Your task to perform on an android device: turn off airplane mode Image 0: 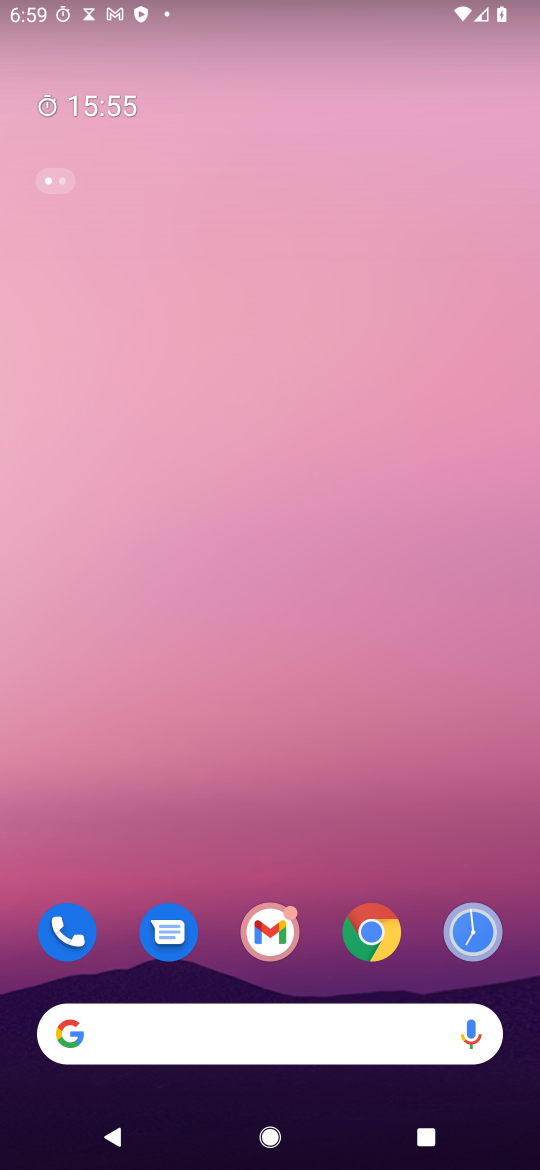
Step 0: drag from (306, 850) to (339, 1169)
Your task to perform on an android device: turn off airplane mode Image 1: 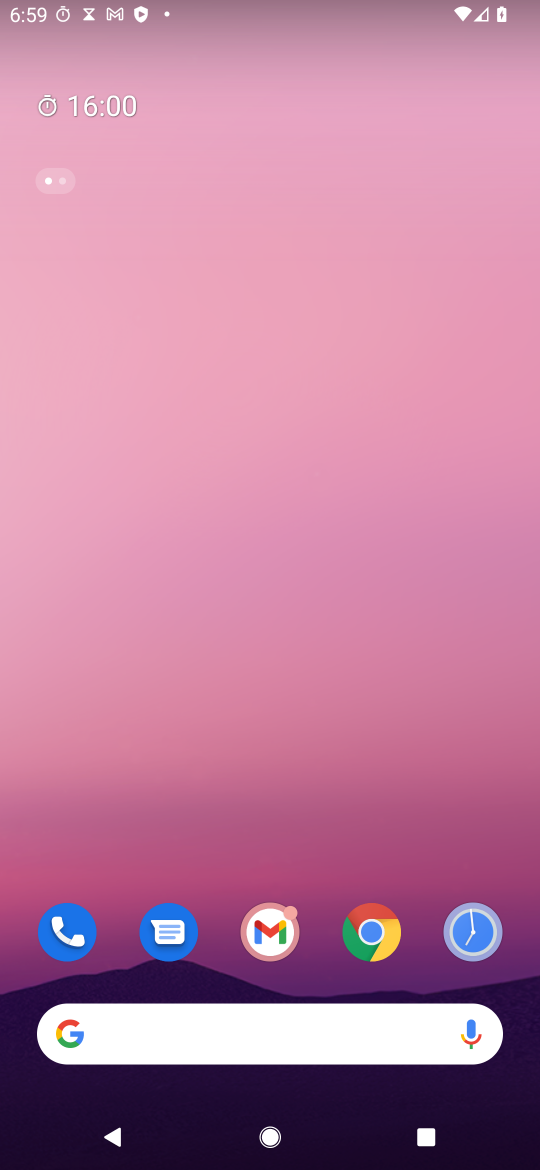
Step 1: drag from (364, 6) to (354, 815)
Your task to perform on an android device: turn off airplane mode Image 2: 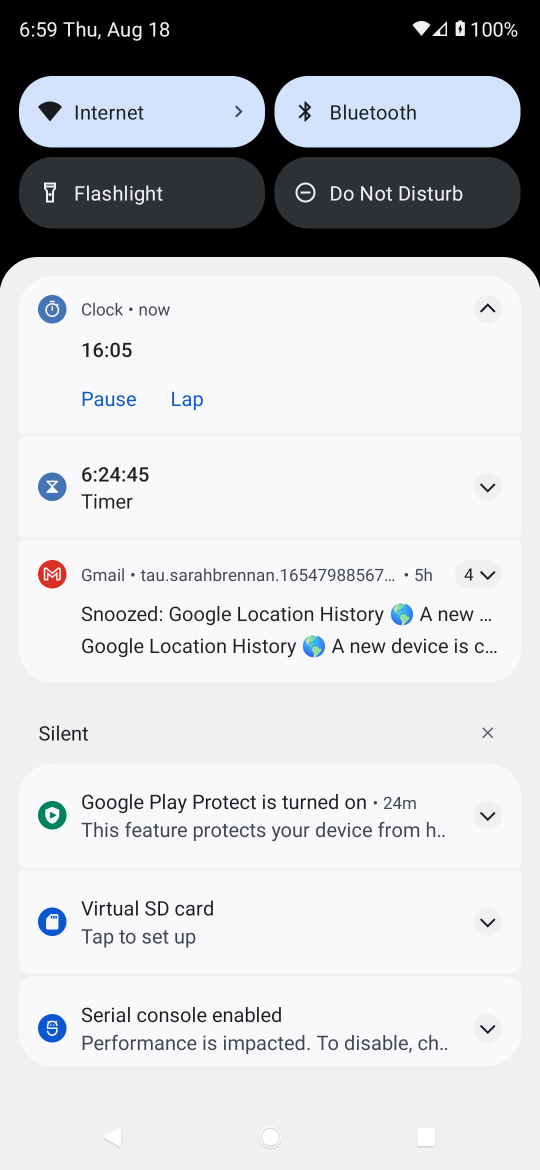
Step 2: drag from (262, 230) to (280, 1161)
Your task to perform on an android device: turn off airplane mode Image 3: 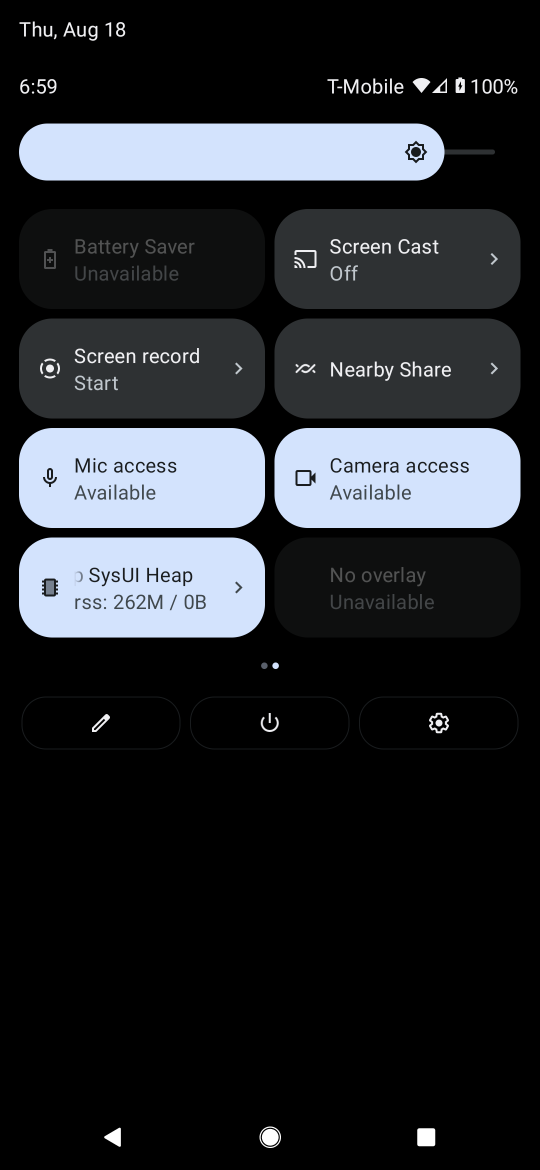
Step 3: drag from (19, 421) to (538, 421)
Your task to perform on an android device: turn off airplane mode Image 4: 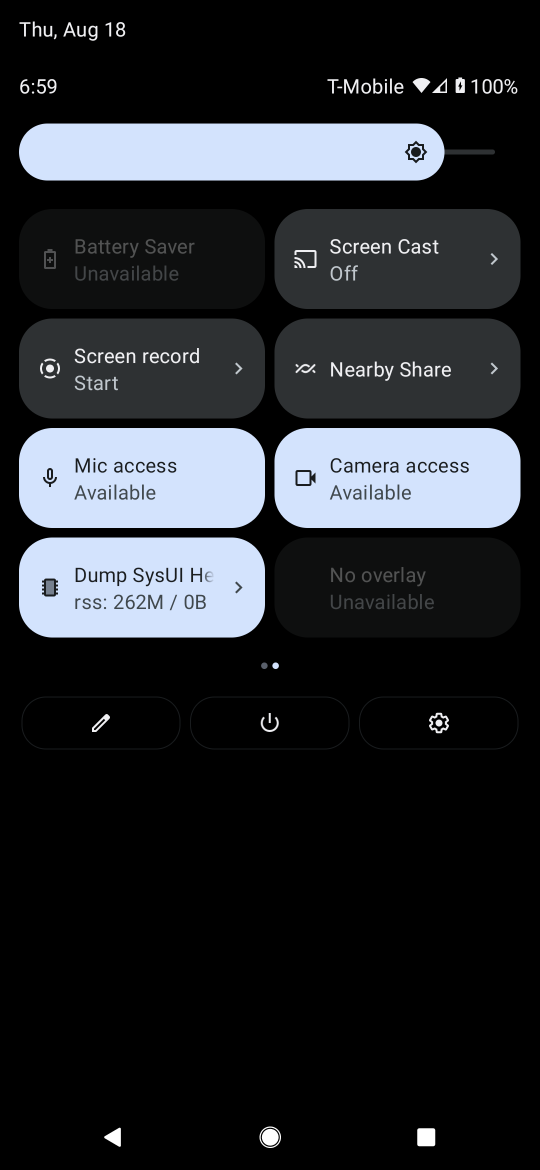
Step 4: drag from (270, 469) to (531, 436)
Your task to perform on an android device: turn off airplane mode Image 5: 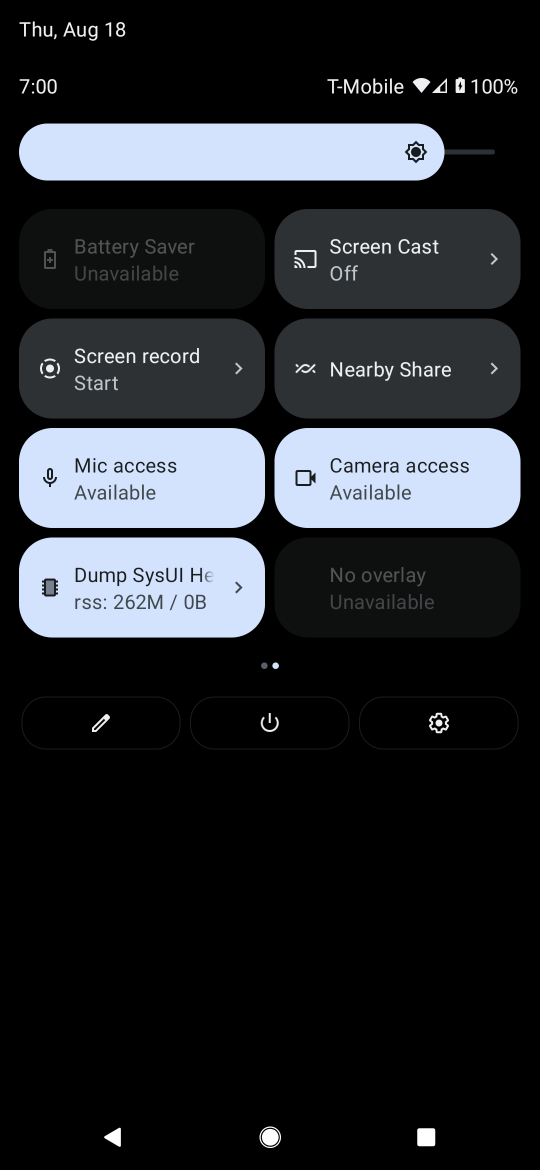
Step 5: drag from (21, 179) to (534, 315)
Your task to perform on an android device: turn off airplane mode Image 6: 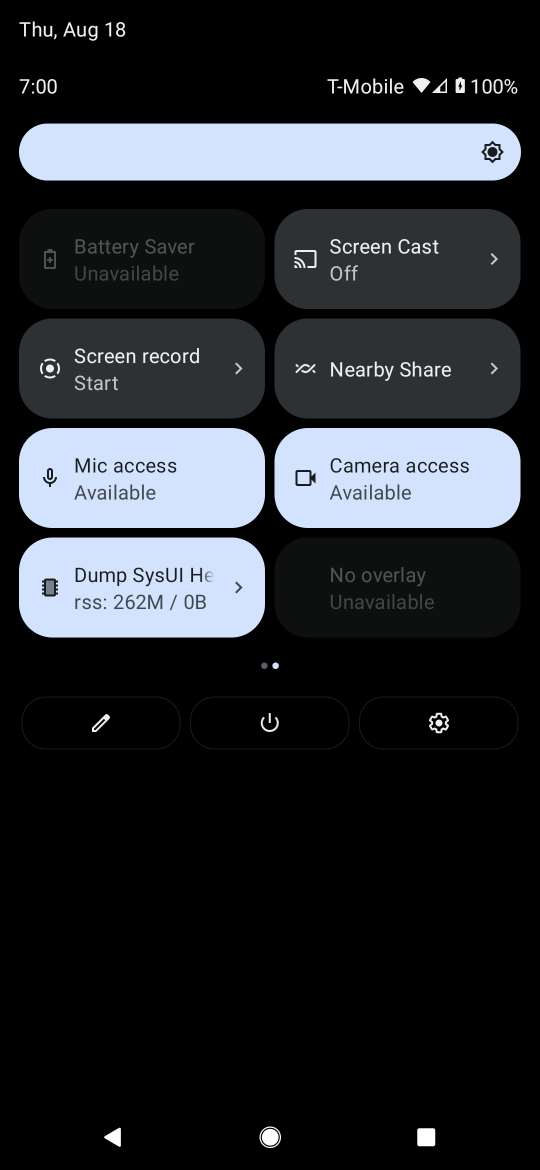
Step 6: drag from (111, 5) to (108, 58)
Your task to perform on an android device: turn off airplane mode Image 7: 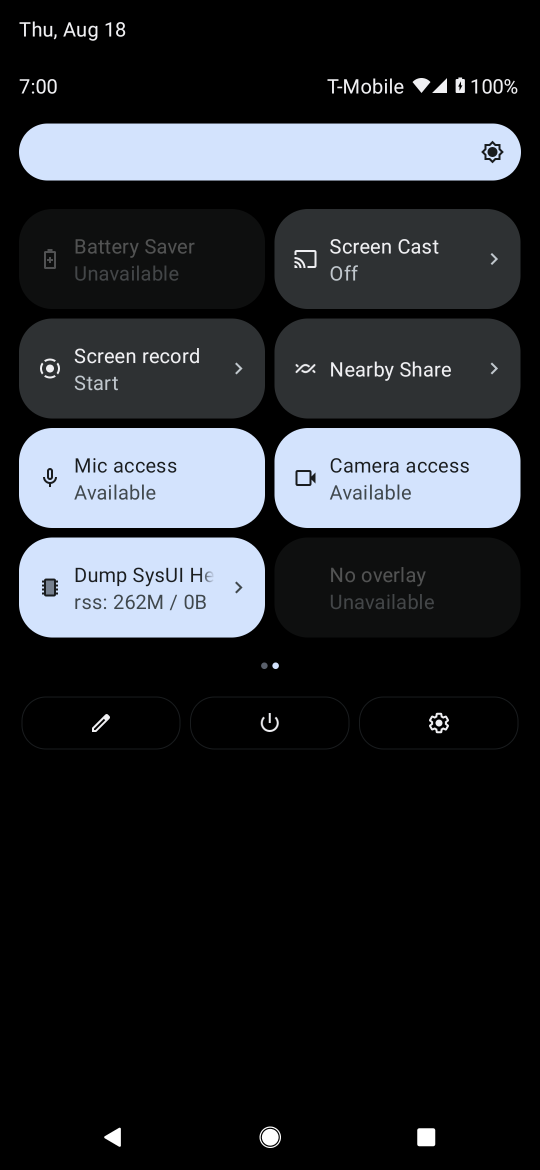
Step 7: drag from (12, 528) to (447, 782)
Your task to perform on an android device: turn off airplane mode Image 8: 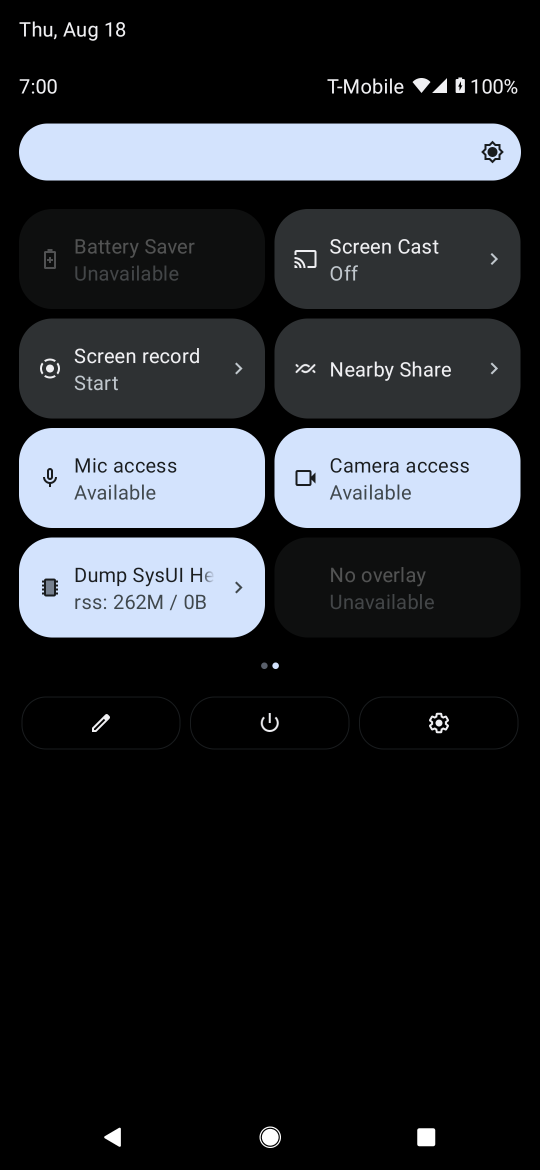
Step 8: drag from (52, 669) to (518, 554)
Your task to perform on an android device: turn off airplane mode Image 9: 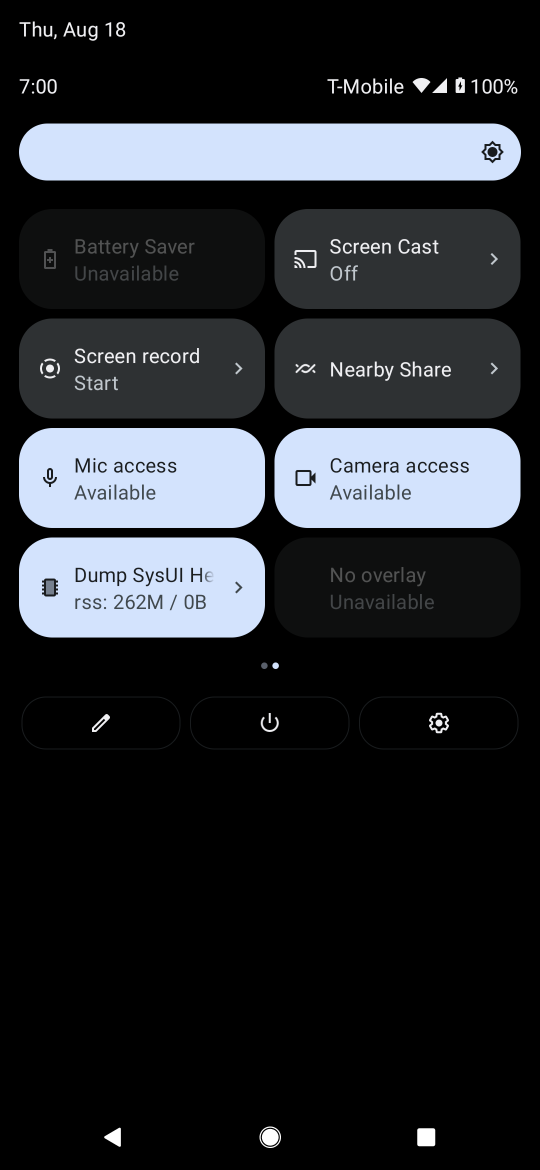
Step 9: drag from (12, 400) to (530, 628)
Your task to perform on an android device: turn off airplane mode Image 10: 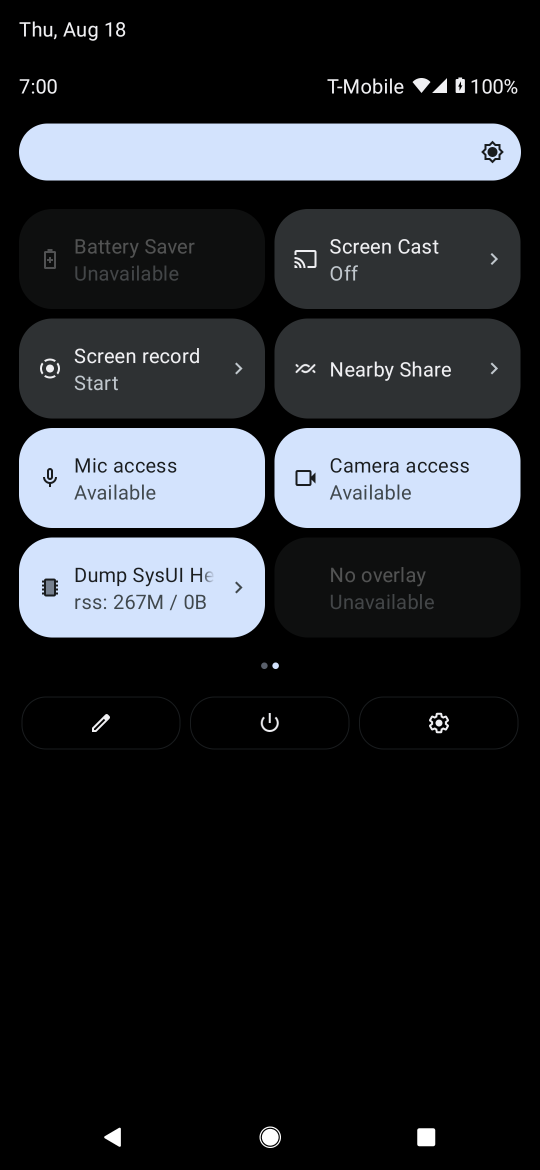
Step 10: drag from (22, 434) to (536, 421)
Your task to perform on an android device: turn off airplane mode Image 11: 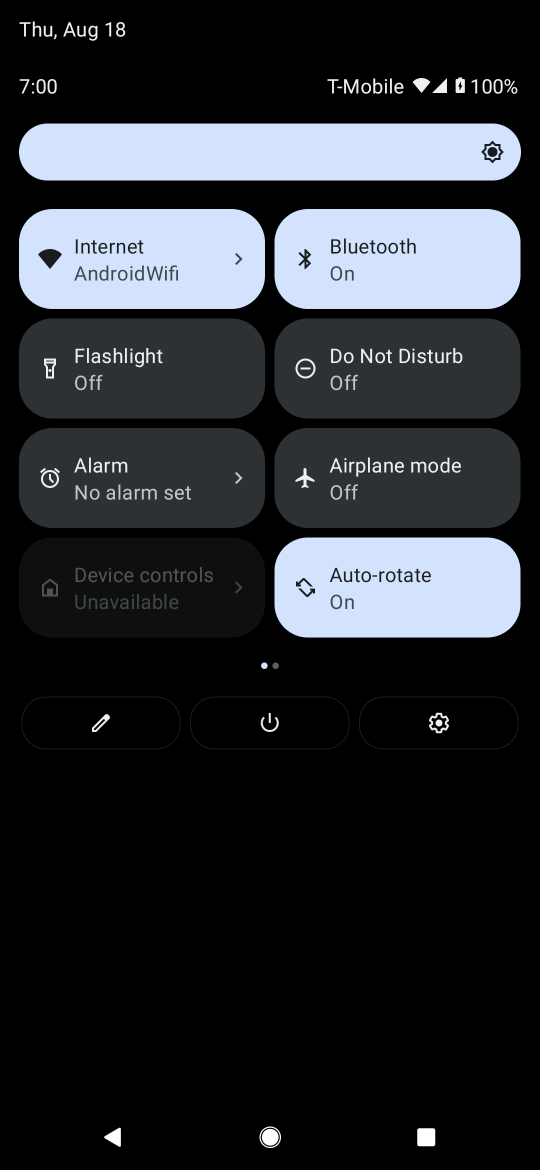
Step 11: click (361, 477)
Your task to perform on an android device: turn off airplane mode Image 12: 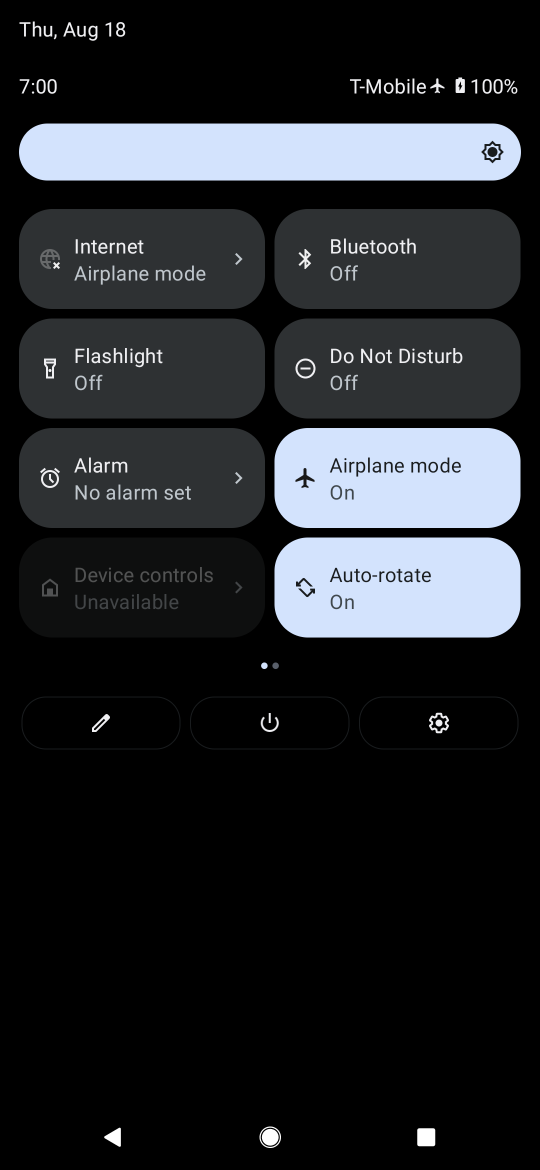
Step 12: click (403, 481)
Your task to perform on an android device: turn off airplane mode Image 13: 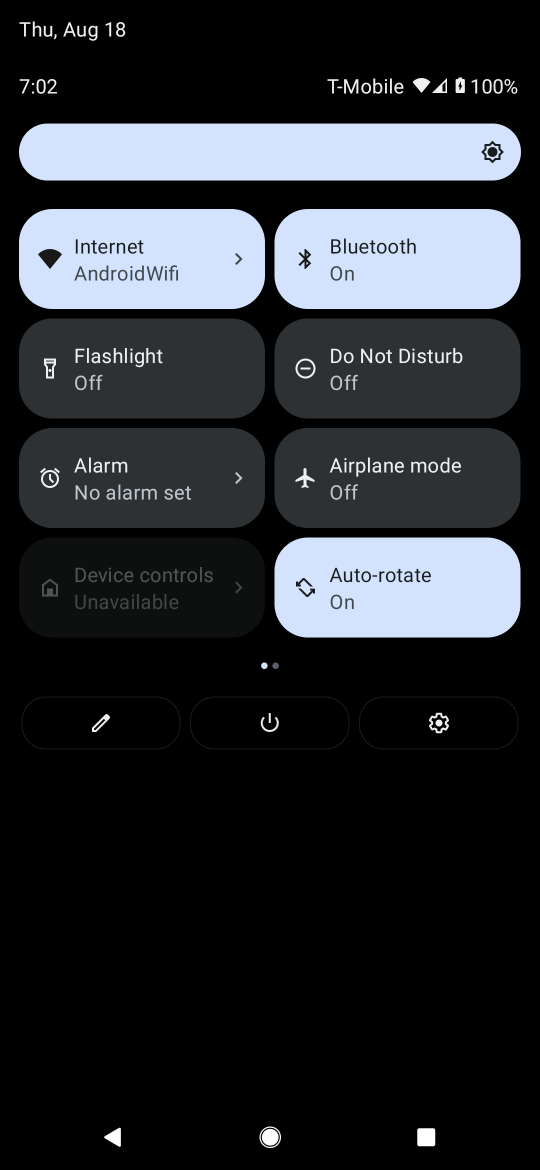
Step 13: task complete